Your task to perform on an android device: Open Google Maps and go to "Timeline" Image 0: 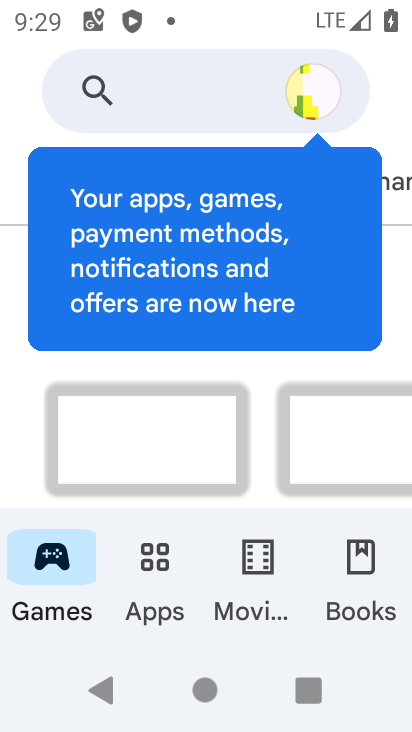
Step 0: press home button
Your task to perform on an android device: Open Google Maps and go to "Timeline" Image 1: 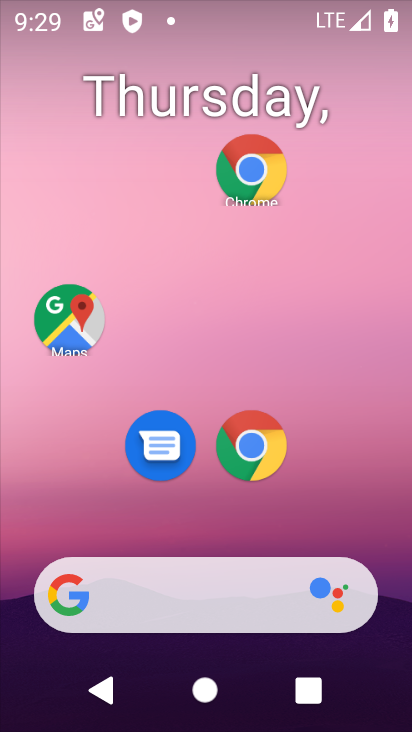
Step 1: drag from (225, 546) to (255, 7)
Your task to perform on an android device: Open Google Maps and go to "Timeline" Image 2: 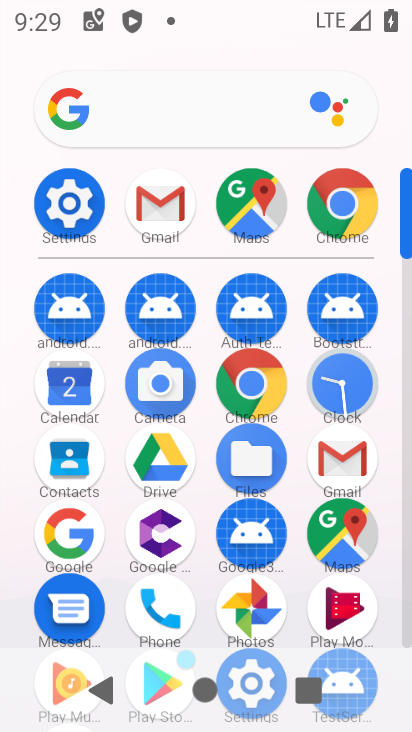
Step 2: click (328, 541)
Your task to perform on an android device: Open Google Maps and go to "Timeline" Image 3: 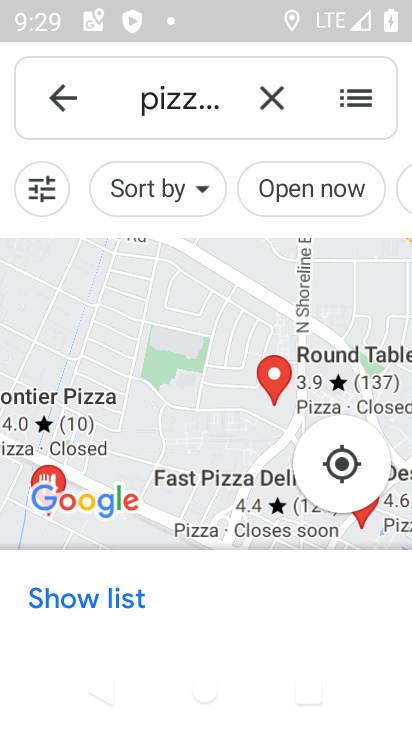
Step 3: click (52, 104)
Your task to perform on an android device: Open Google Maps and go to "Timeline" Image 4: 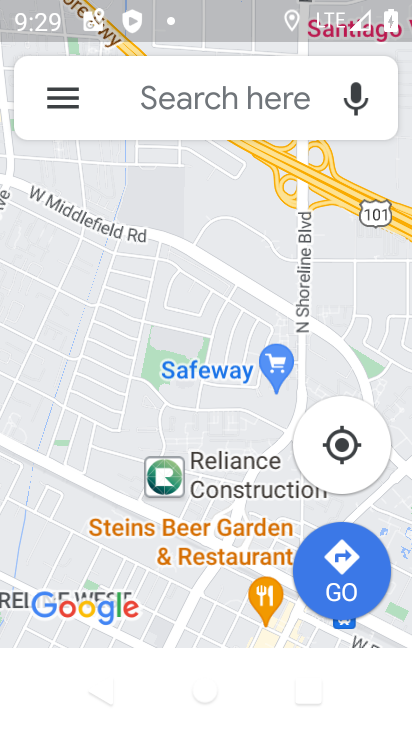
Step 4: click (39, 99)
Your task to perform on an android device: Open Google Maps and go to "Timeline" Image 5: 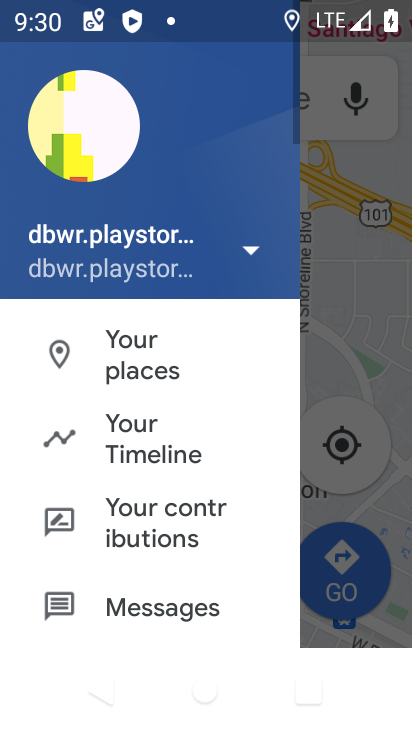
Step 5: click (139, 423)
Your task to perform on an android device: Open Google Maps and go to "Timeline" Image 6: 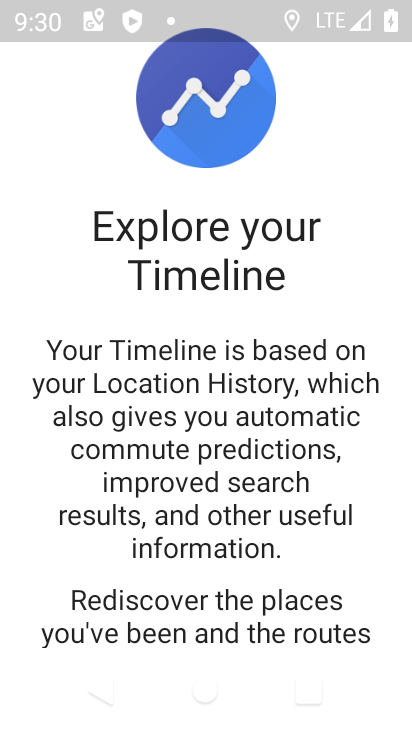
Step 6: drag from (270, 625) to (203, 66)
Your task to perform on an android device: Open Google Maps and go to "Timeline" Image 7: 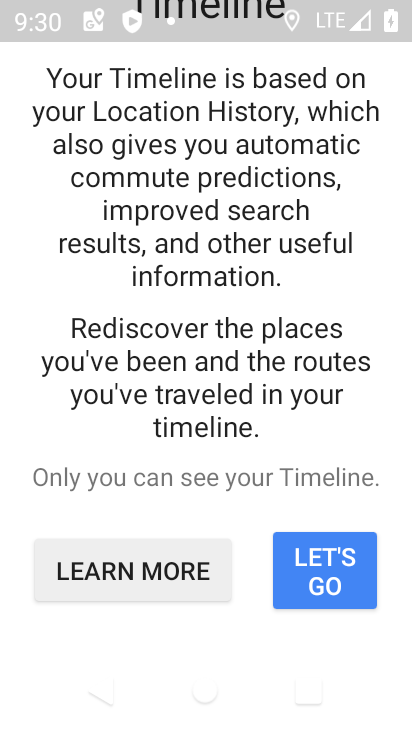
Step 7: click (336, 547)
Your task to perform on an android device: Open Google Maps and go to "Timeline" Image 8: 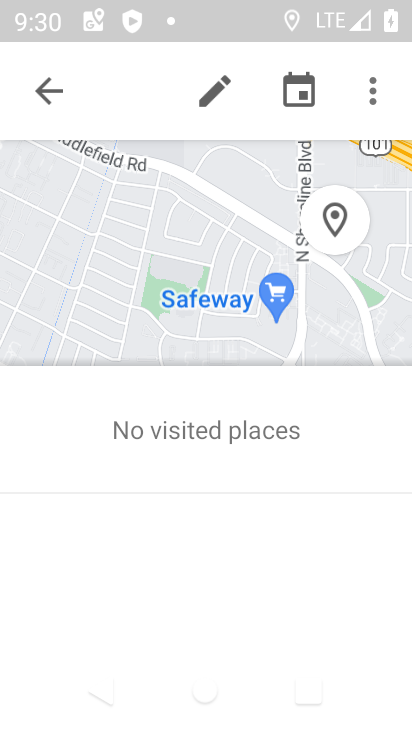
Step 8: task complete